Your task to perform on an android device: Do I have any events today? Image 0: 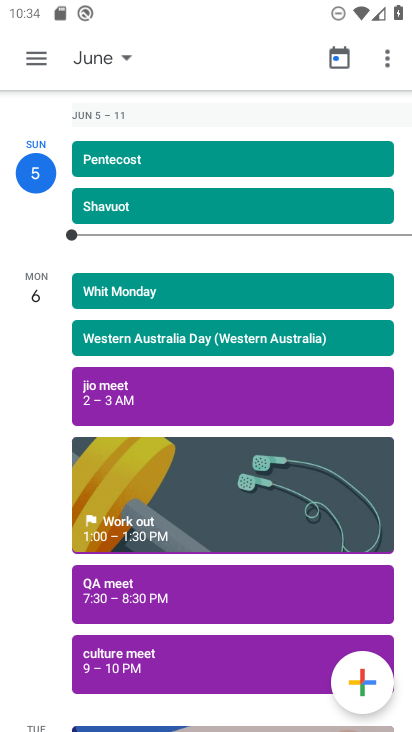
Step 0: click (126, 337)
Your task to perform on an android device: Do I have any events today? Image 1: 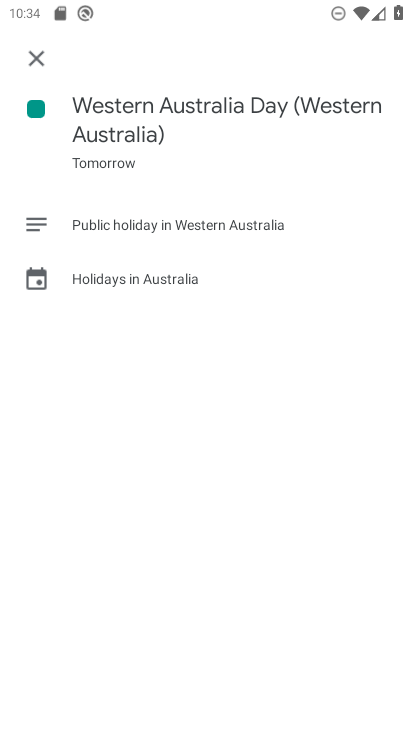
Step 1: task complete